Your task to perform on an android device: Set the phone to "Do not disturb". Image 0: 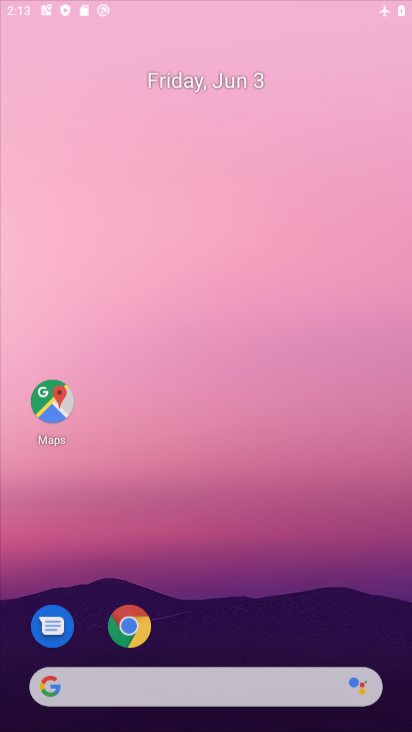
Step 0: drag from (203, 147) to (207, 238)
Your task to perform on an android device: Set the phone to "Do not disturb". Image 1: 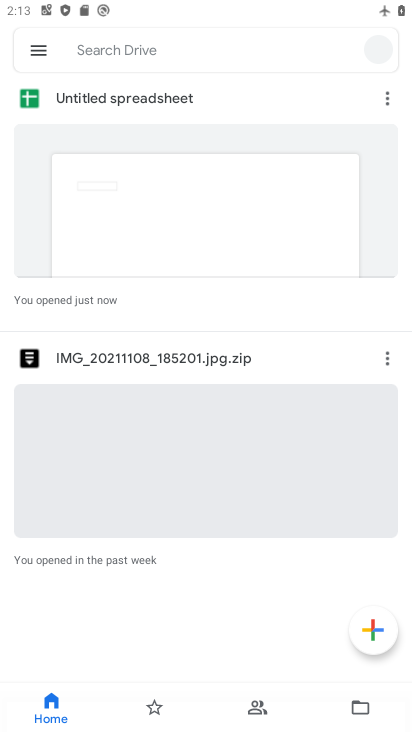
Step 1: press home button
Your task to perform on an android device: Set the phone to "Do not disturb". Image 2: 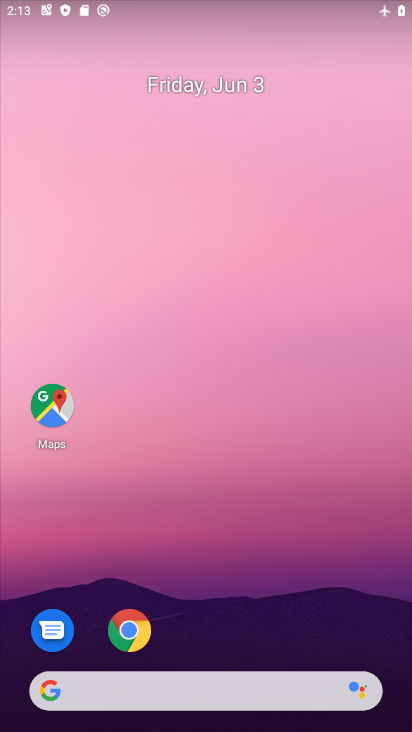
Step 2: drag from (218, 730) to (226, 214)
Your task to perform on an android device: Set the phone to "Do not disturb". Image 3: 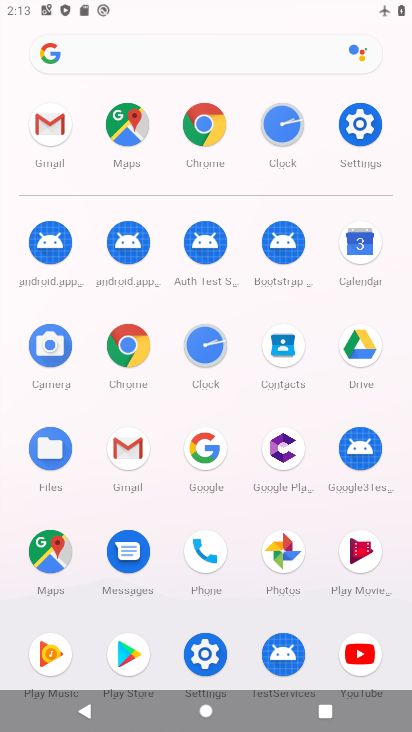
Step 3: click (361, 129)
Your task to perform on an android device: Set the phone to "Do not disturb". Image 4: 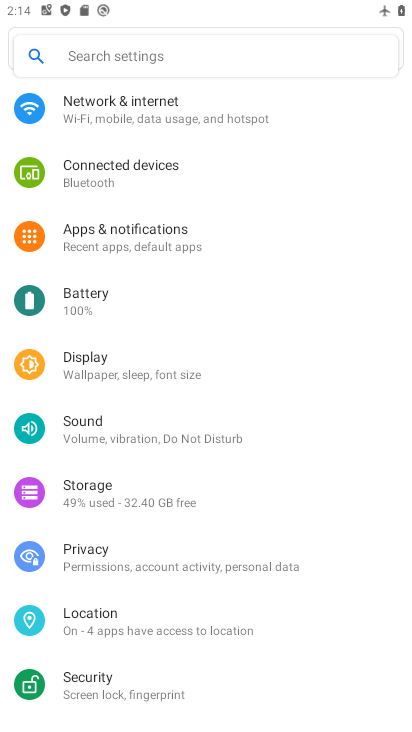
Step 4: click (184, 435)
Your task to perform on an android device: Set the phone to "Do not disturb". Image 5: 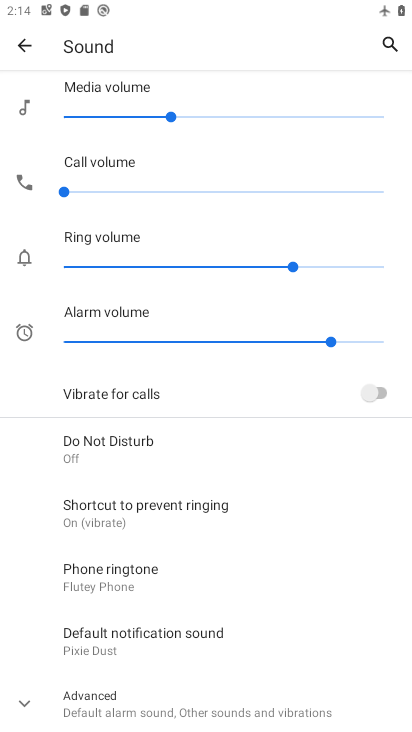
Step 5: click (128, 444)
Your task to perform on an android device: Set the phone to "Do not disturb". Image 6: 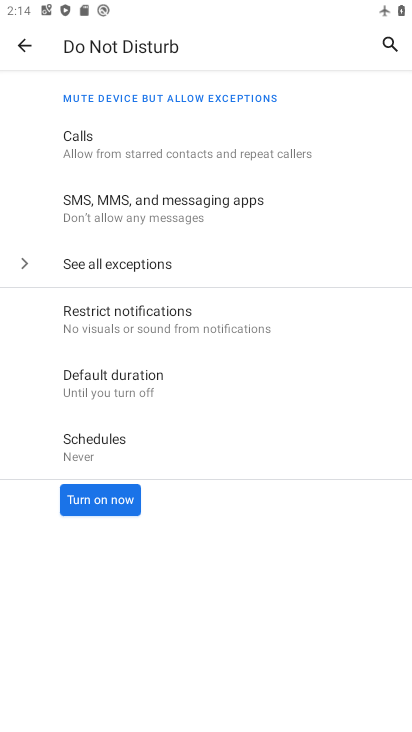
Step 6: click (88, 501)
Your task to perform on an android device: Set the phone to "Do not disturb". Image 7: 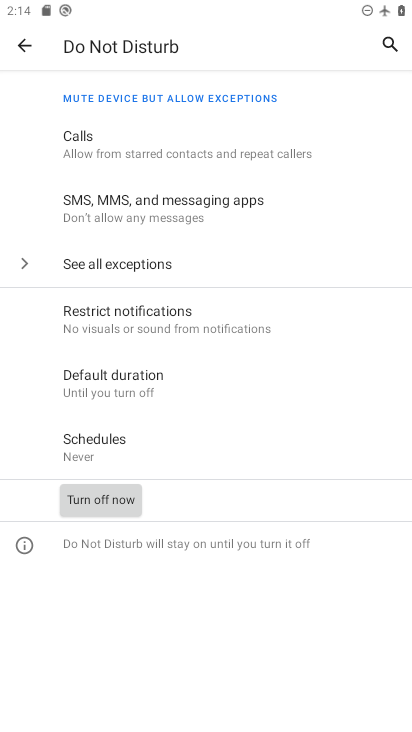
Step 7: task complete